Your task to perform on an android device: Open Maps and search for coffee Image 0: 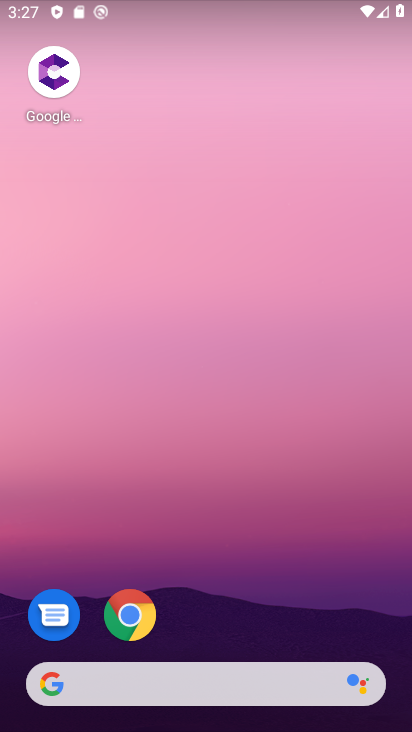
Step 0: drag from (232, 726) to (224, 118)
Your task to perform on an android device: Open Maps and search for coffee Image 1: 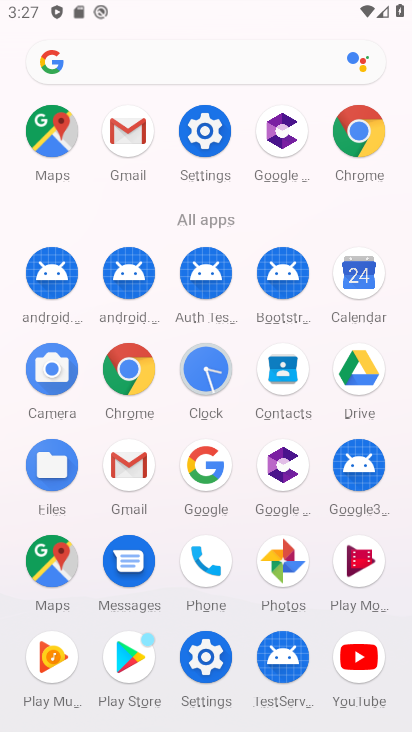
Step 1: click (52, 556)
Your task to perform on an android device: Open Maps and search for coffee Image 2: 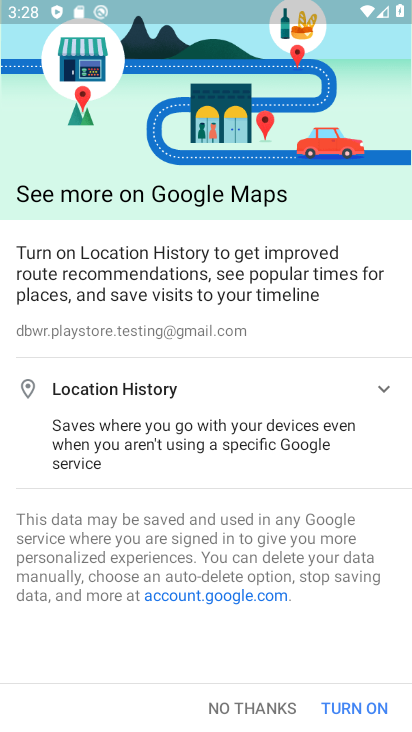
Step 2: click (354, 701)
Your task to perform on an android device: Open Maps and search for coffee Image 3: 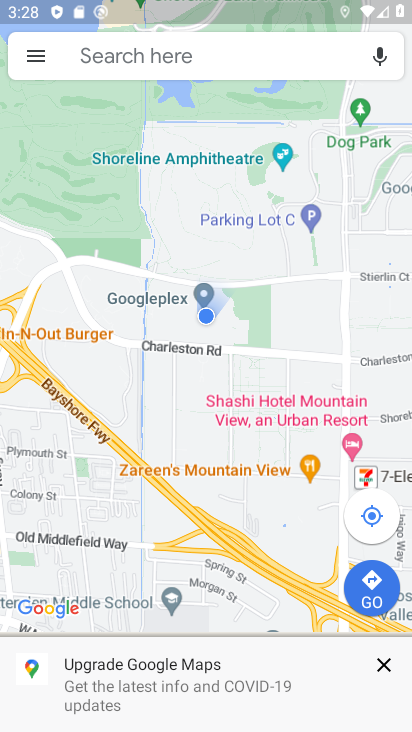
Step 3: click (192, 50)
Your task to perform on an android device: Open Maps and search for coffee Image 4: 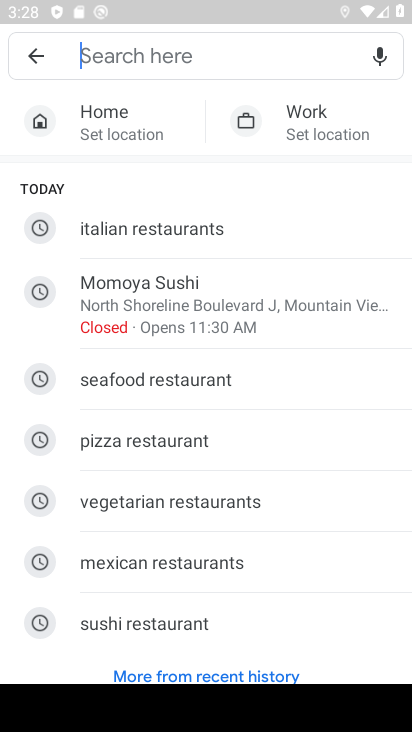
Step 4: type "coffee"
Your task to perform on an android device: Open Maps and search for coffee Image 5: 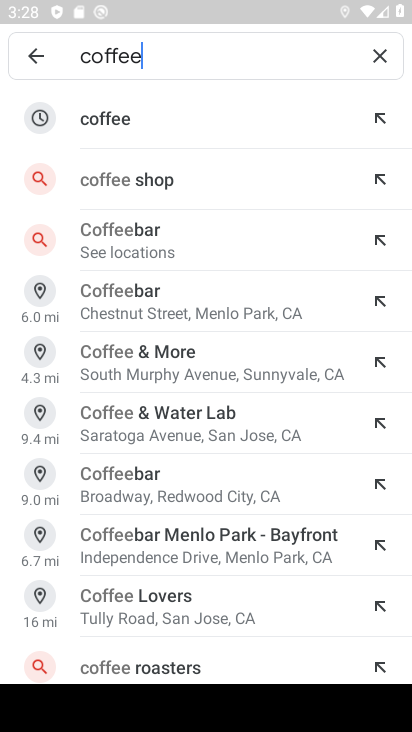
Step 5: click (119, 119)
Your task to perform on an android device: Open Maps and search for coffee Image 6: 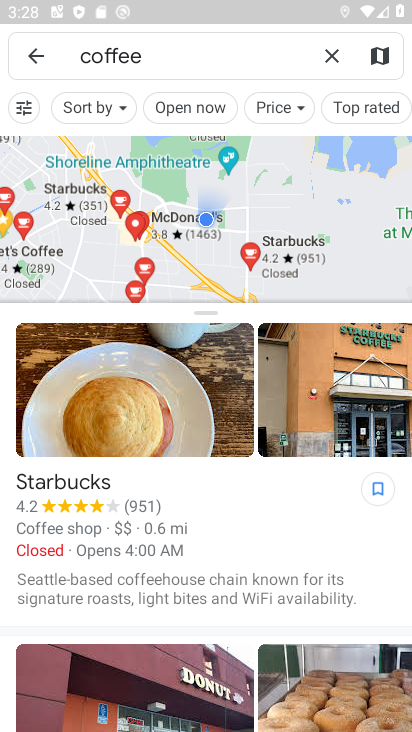
Step 6: task complete